Your task to perform on an android device: Search for a new skincare product Image 0: 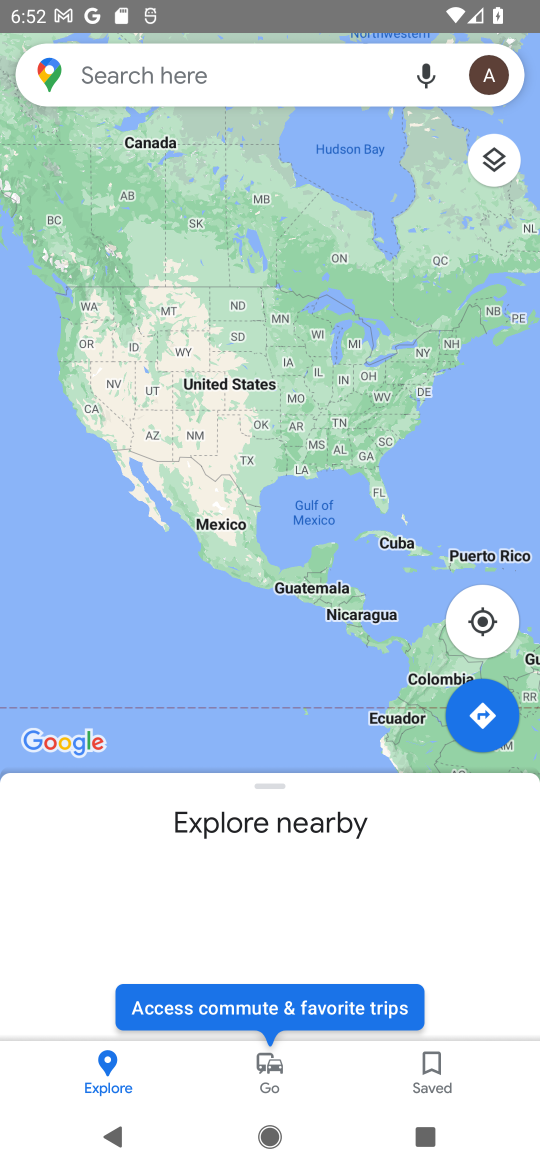
Step 0: press home button
Your task to perform on an android device: Search for a new skincare product Image 1: 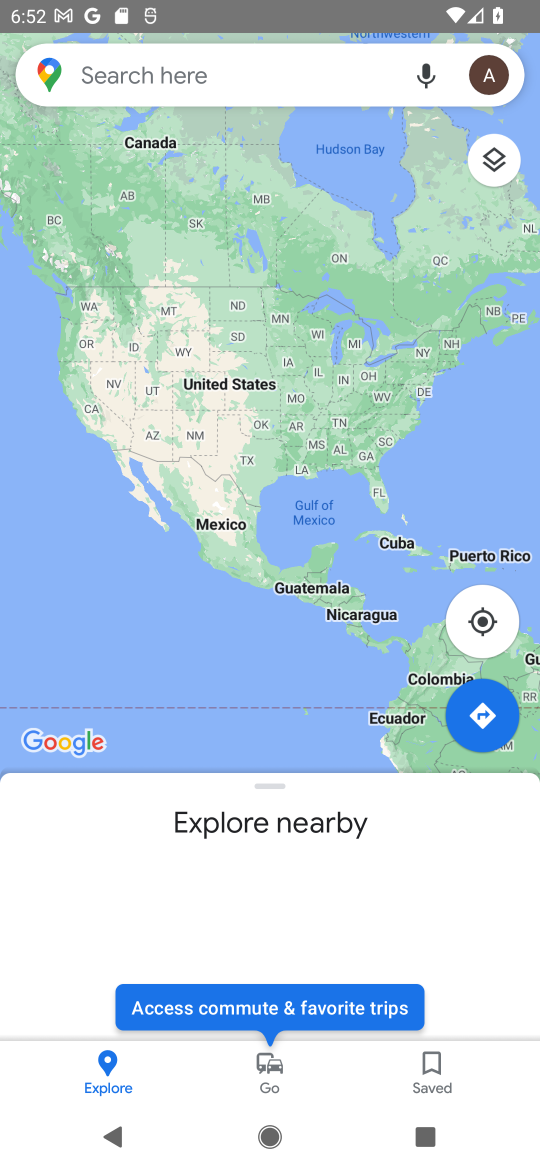
Step 1: press home button
Your task to perform on an android device: Search for a new skincare product Image 2: 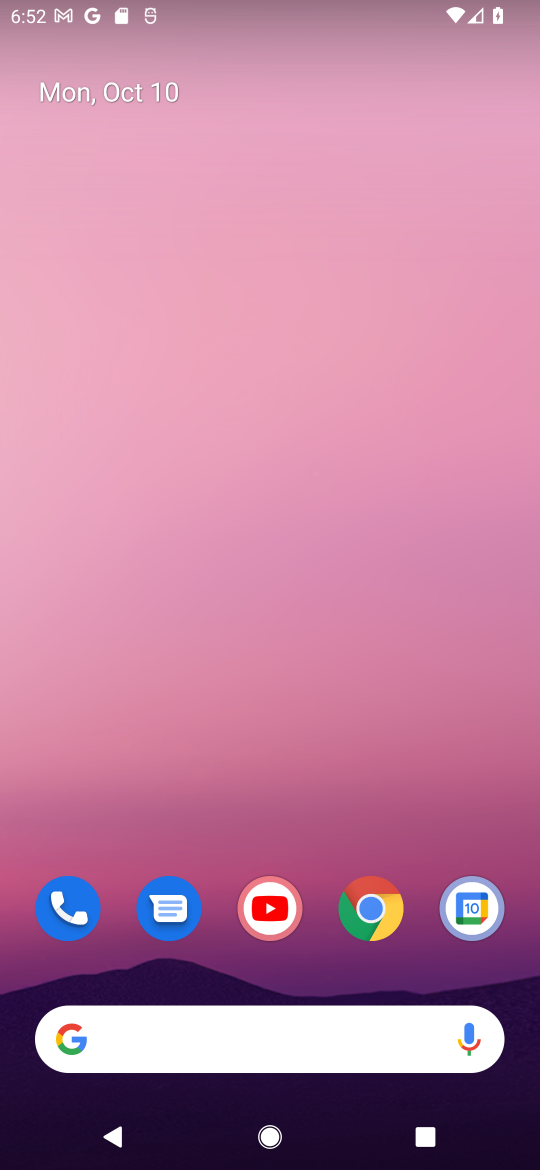
Step 2: drag from (317, 966) to (269, 6)
Your task to perform on an android device: Search for a new skincare product Image 3: 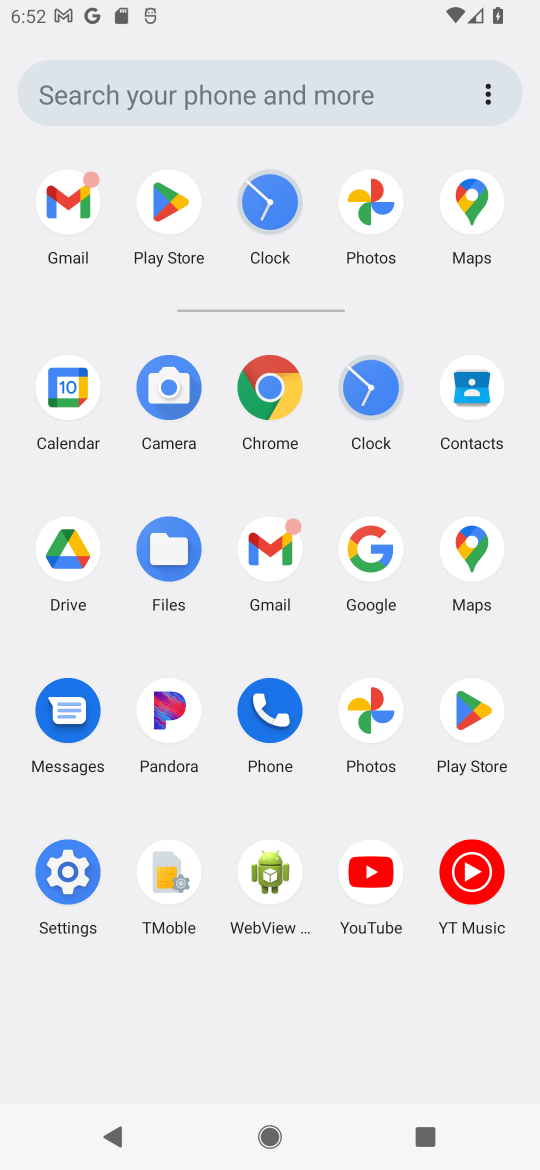
Step 3: click (270, 384)
Your task to perform on an android device: Search for a new skincare product Image 4: 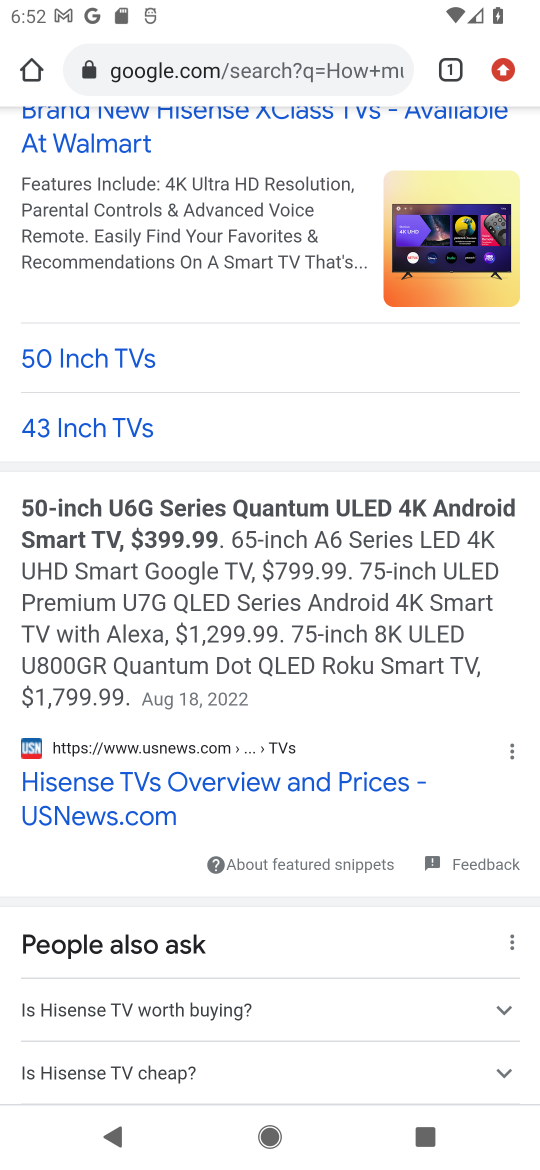
Step 4: click (199, 87)
Your task to perform on an android device: Search for a new skincare product Image 5: 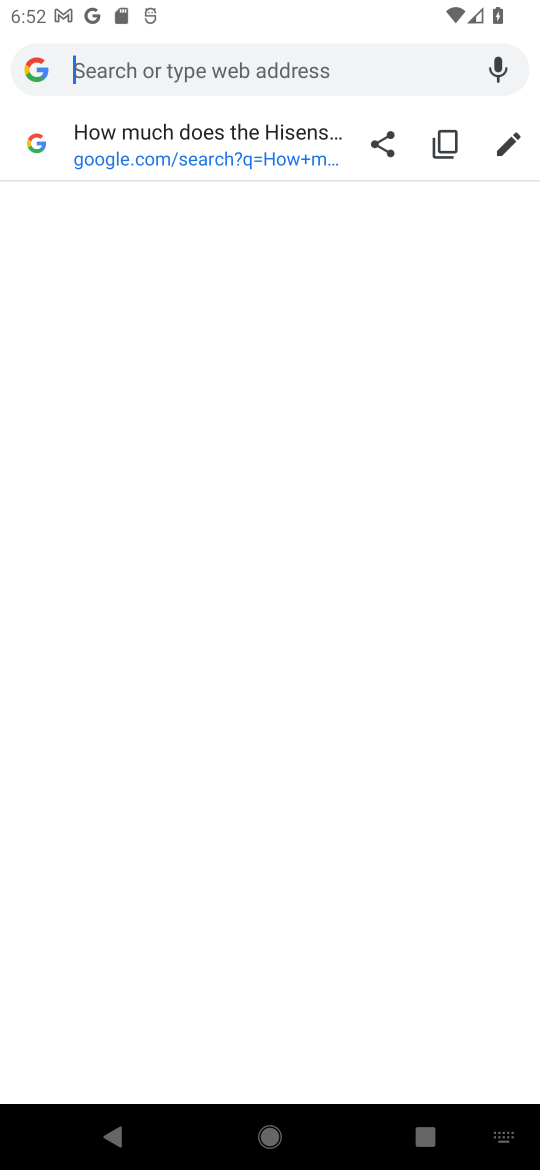
Step 5: type "new skincare product"
Your task to perform on an android device: Search for a new skincare product Image 6: 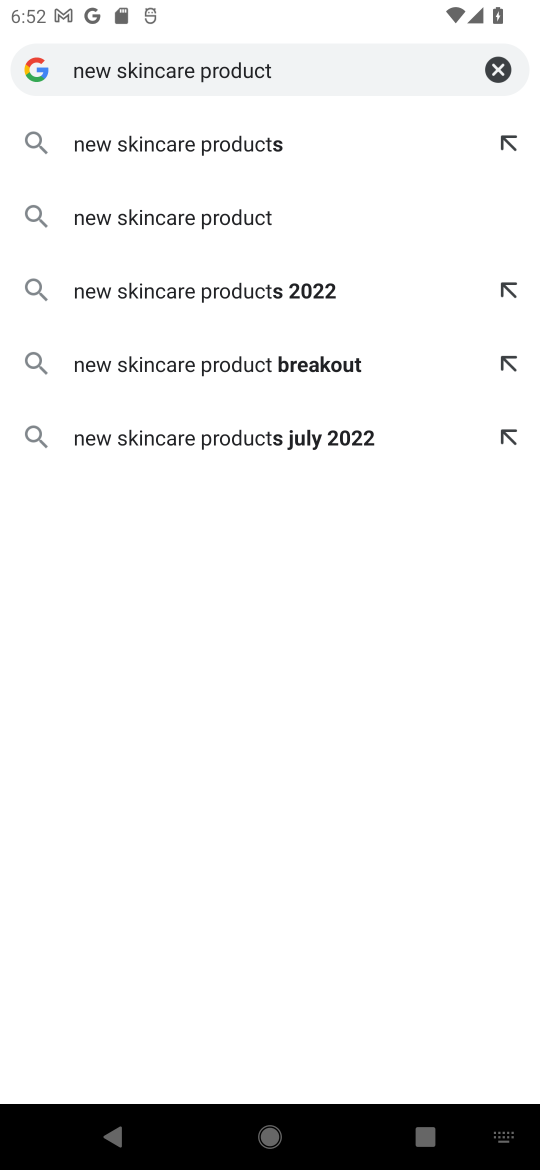
Step 6: press enter
Your task to perform on an android device: Search for a new skincare product Image 7: 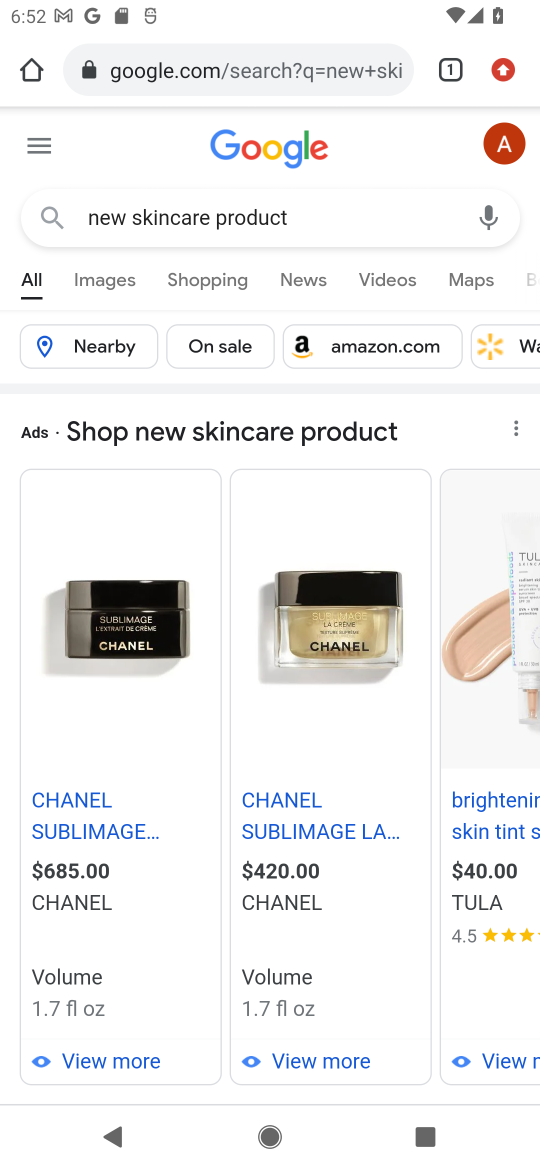
Step 7: task complete